Your task to perform on an android device: Search for the best rated mechanical keyboard on Amazon. Image 0: 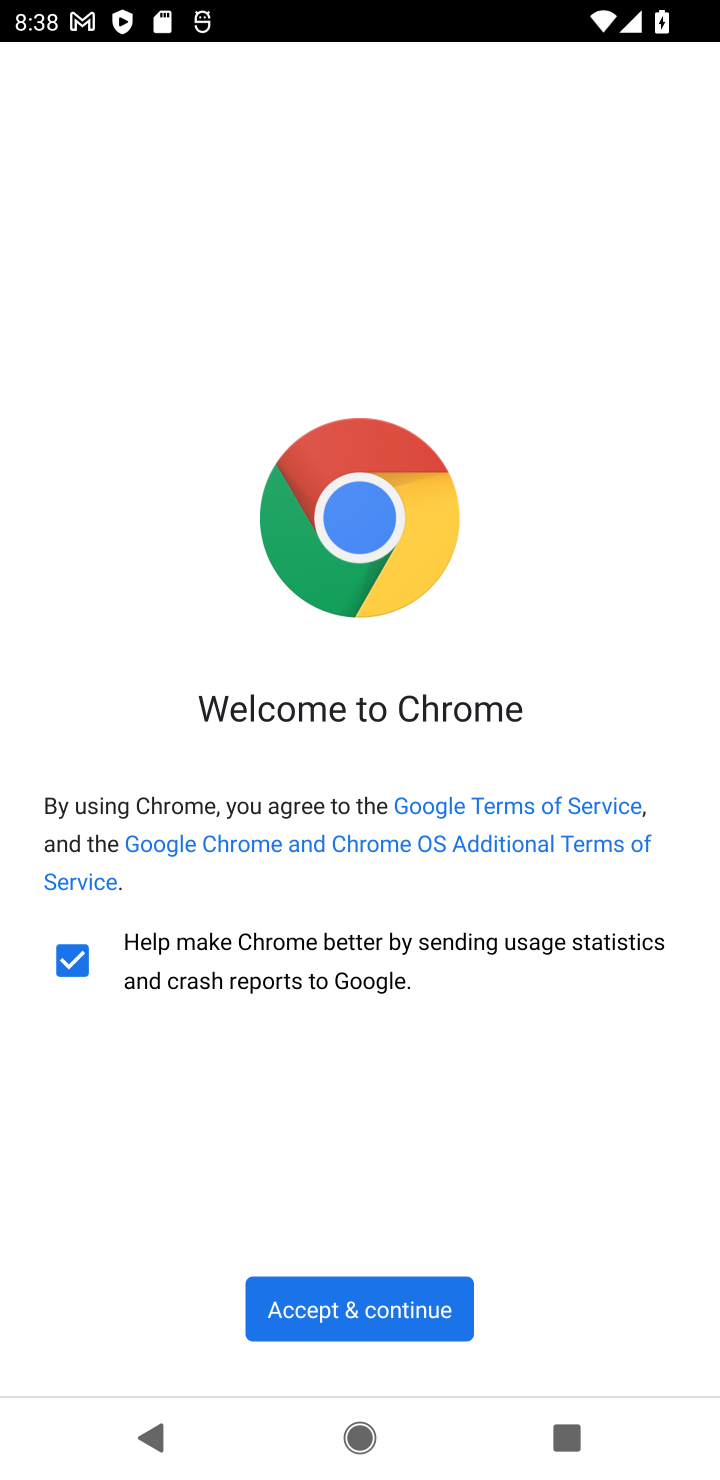
Step 0: press home button
Your task to perform on an android device: Search for the best rated mechanical keyboard on Amazon. Image 1: 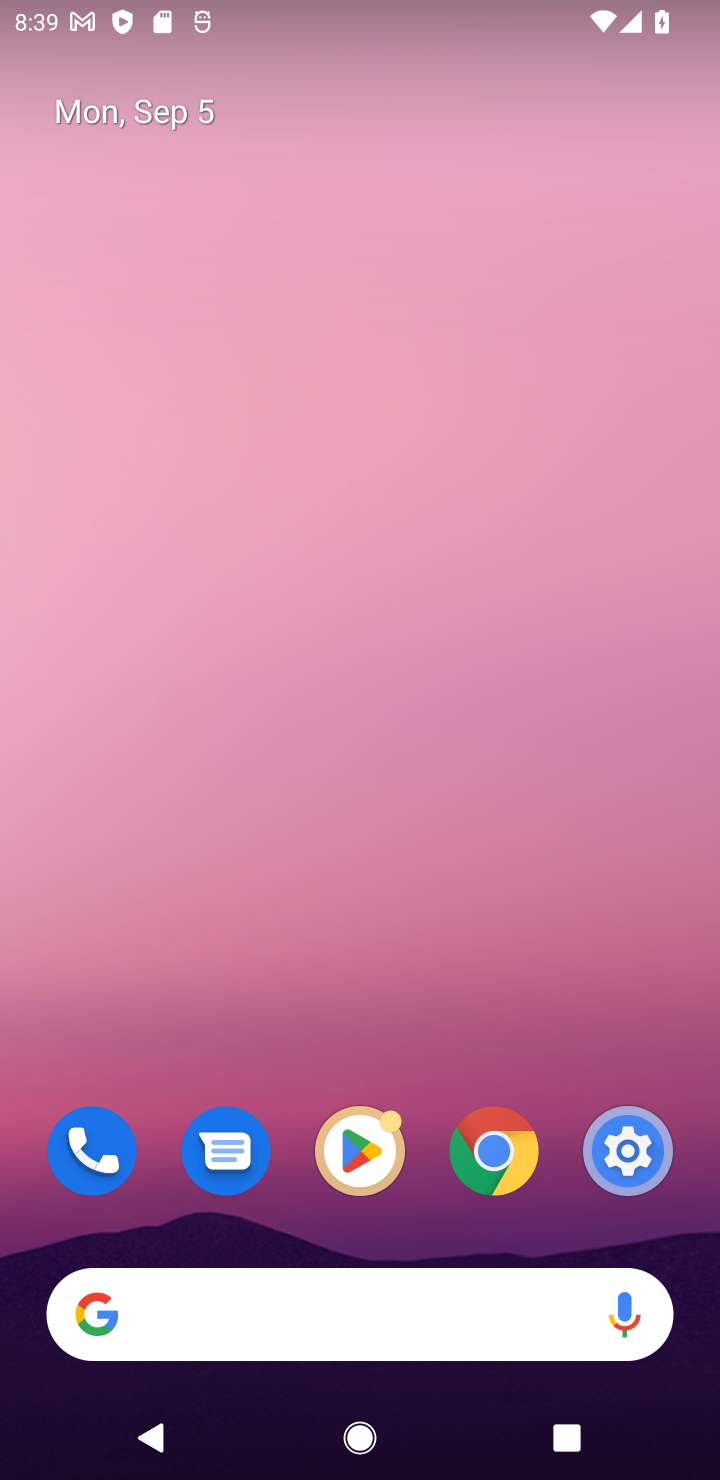
Step 1: drag from (473, 818) to (516, 0)
Your task to perform on an android device: Search for the best rated mechanical keyboard on Amazon. Image 2: 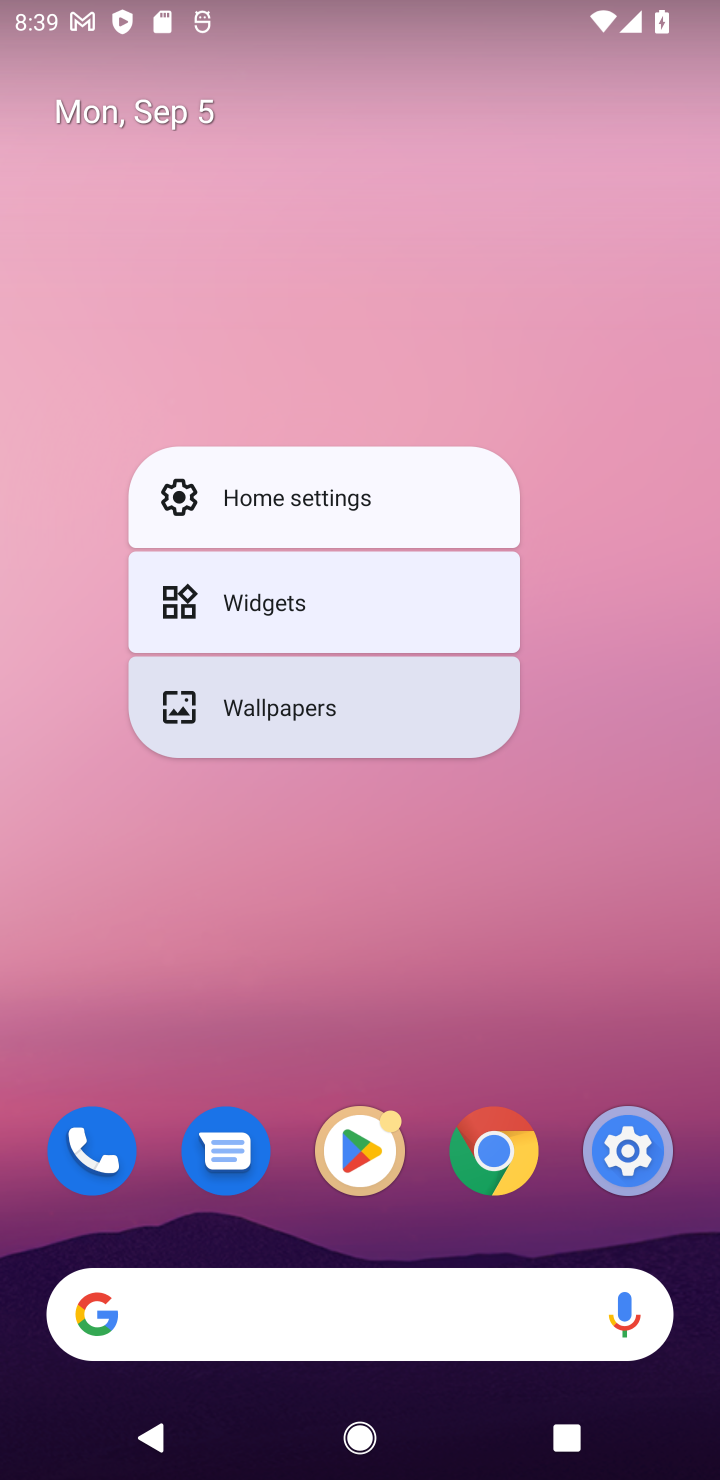
Step 2: click (704, 851)
Your task to perform on an android device: Search for the best rated mechanical keyboard on Amazon. Image 3: 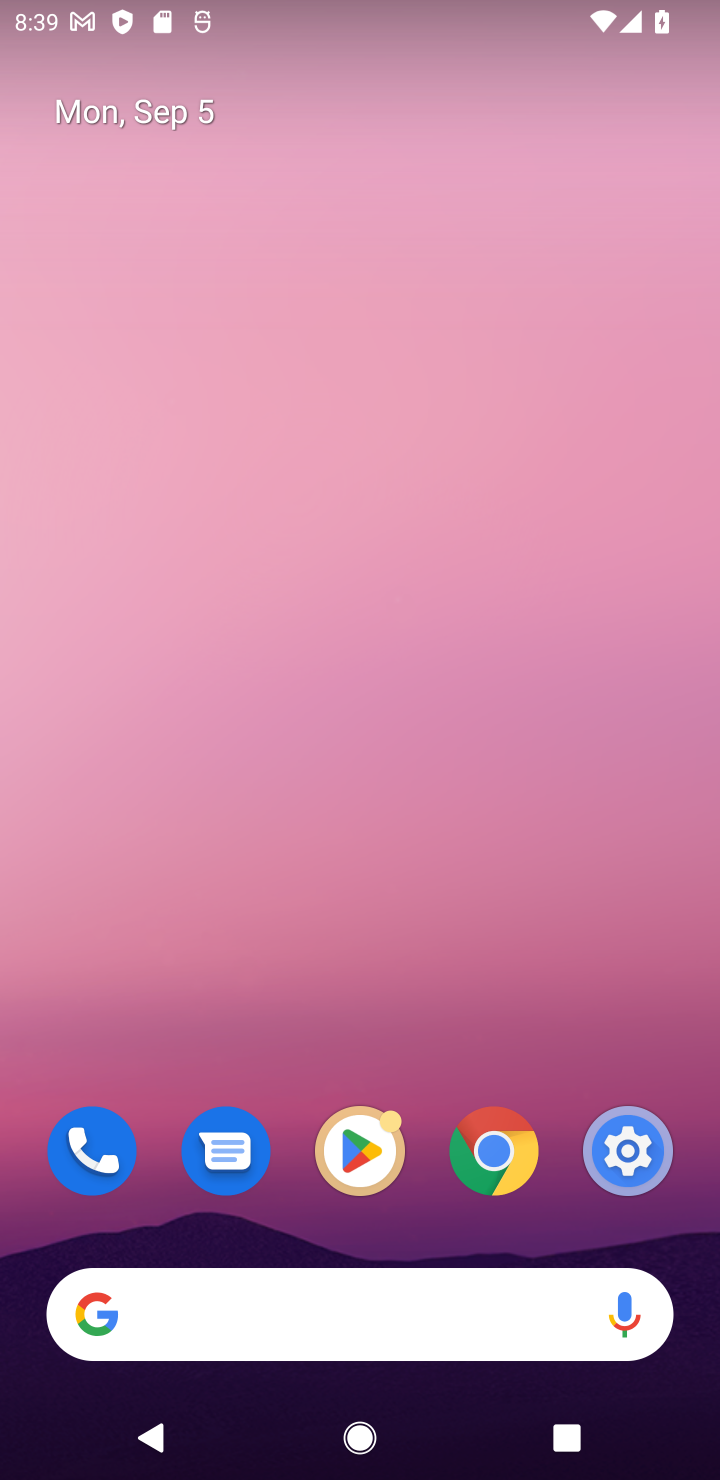
Step 3: drag from (316, 1079) to (439, 597)
Your task to perform on an android device: Search for the best rated mechanical keyboard on Amazon. Image 4: 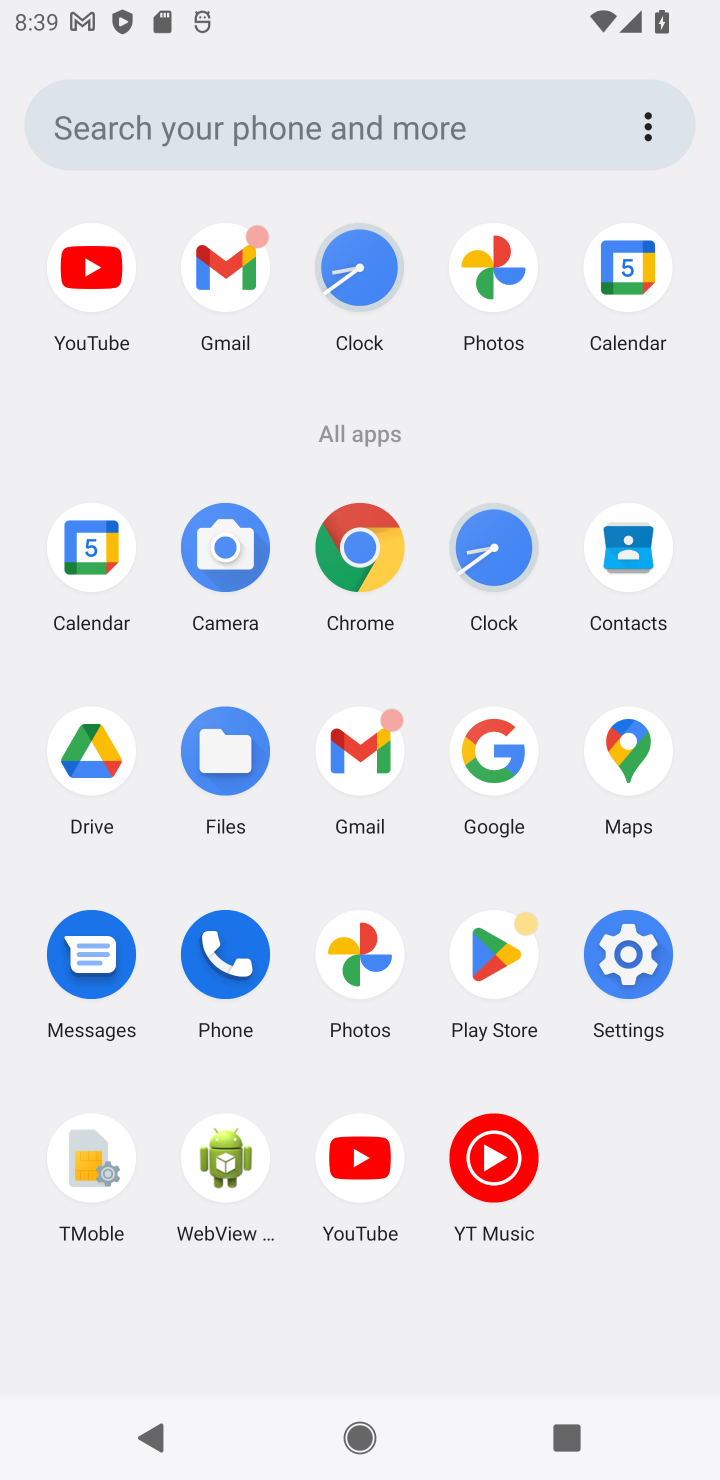
Step 4: click (385, 581)
Your task to perform on an android device: Search for the best rated mechanical keyboard on Amazon. Image 5: 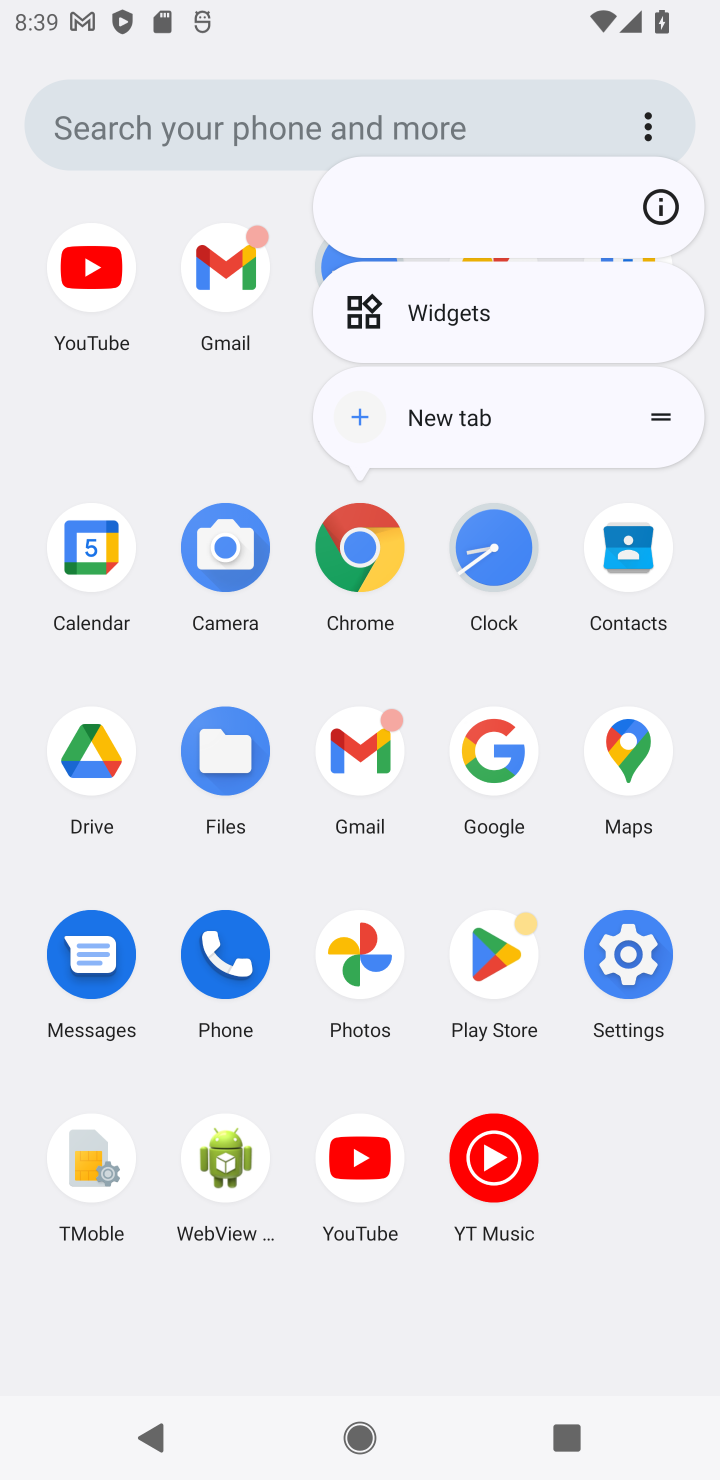
Step 5: click (378, 552)
Your task to perform on an android device: Search for the best rated mechanical keyboard on Amazon. Image 6: 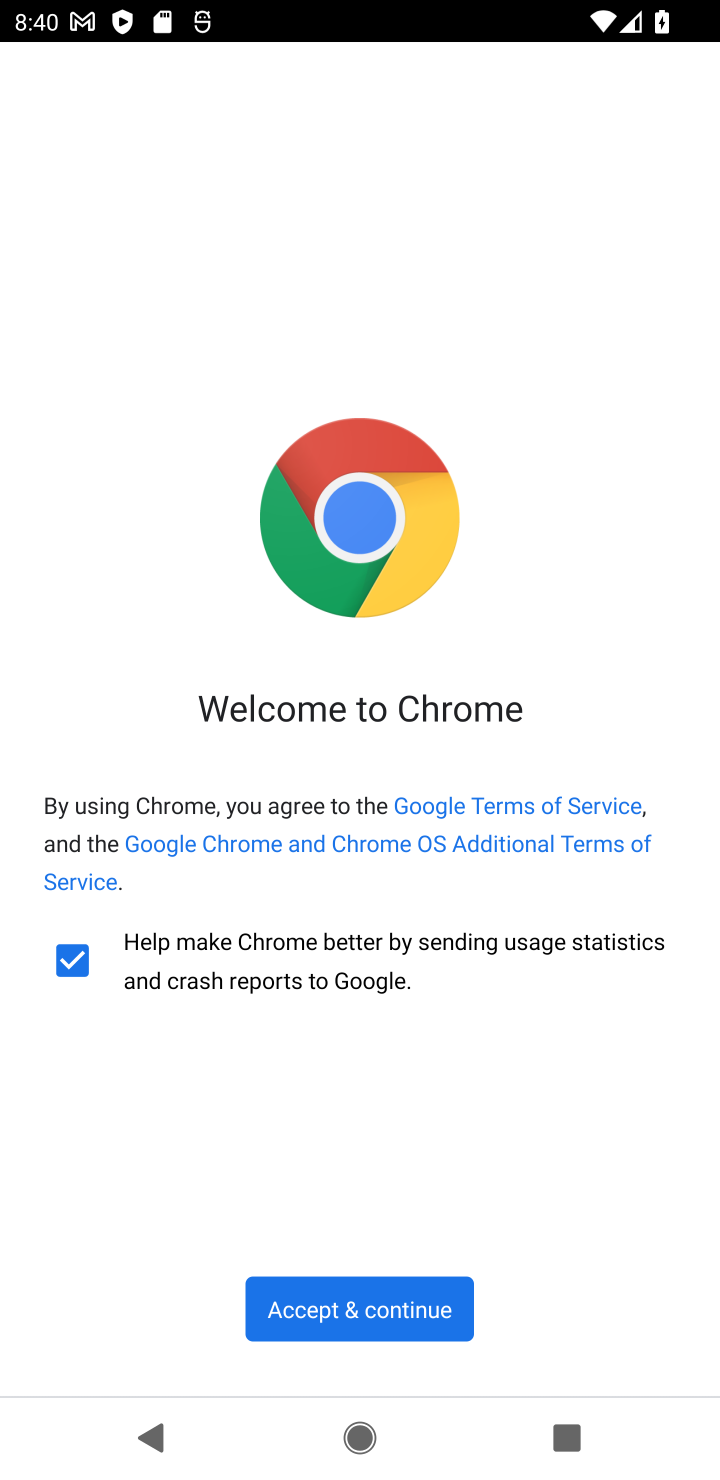
Step 6: click (343, 1303)
Your task to perform on an android device: Search for the best rated mechanical keyboard on Amazon. Image 7: 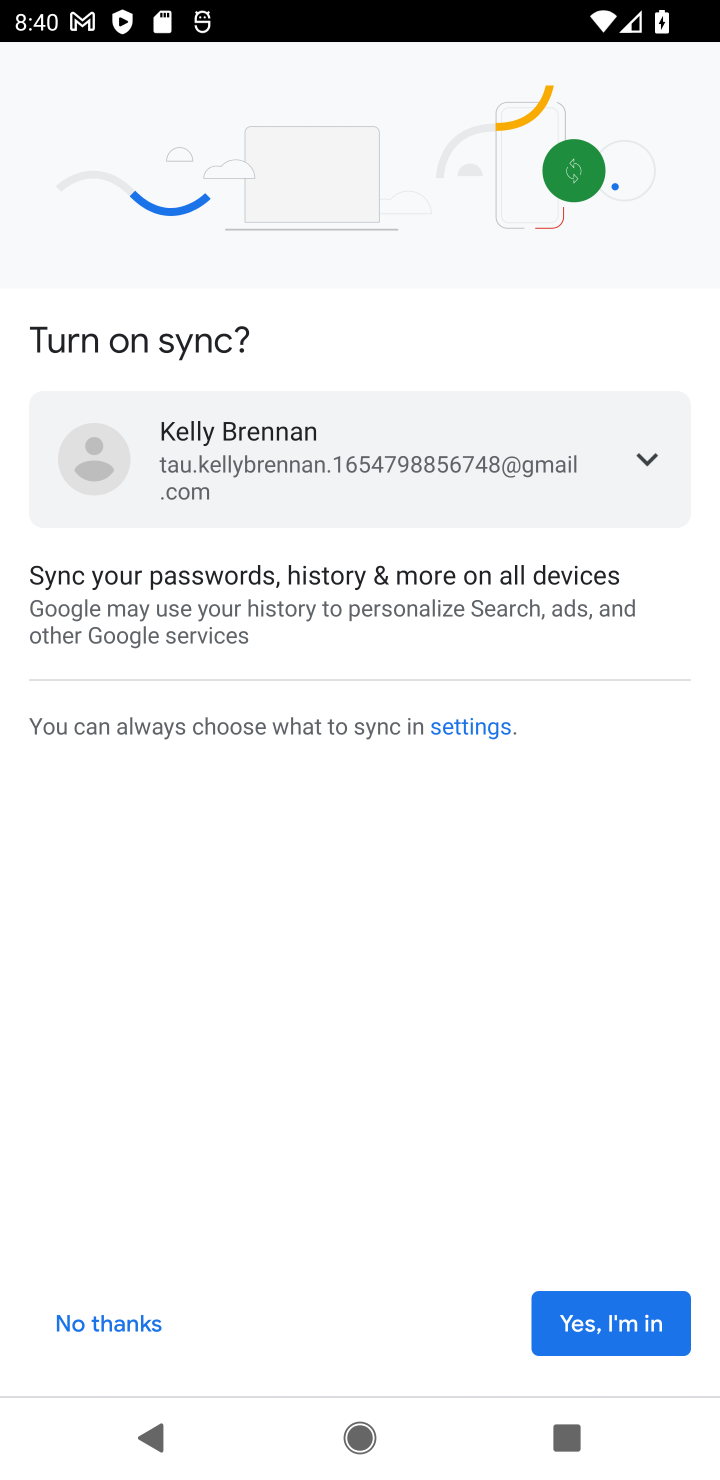
Step 7: click (590, 1314)
Your task to perform on an android device: Search for the best rated mechanical keyboard on Amazon. Image 8: 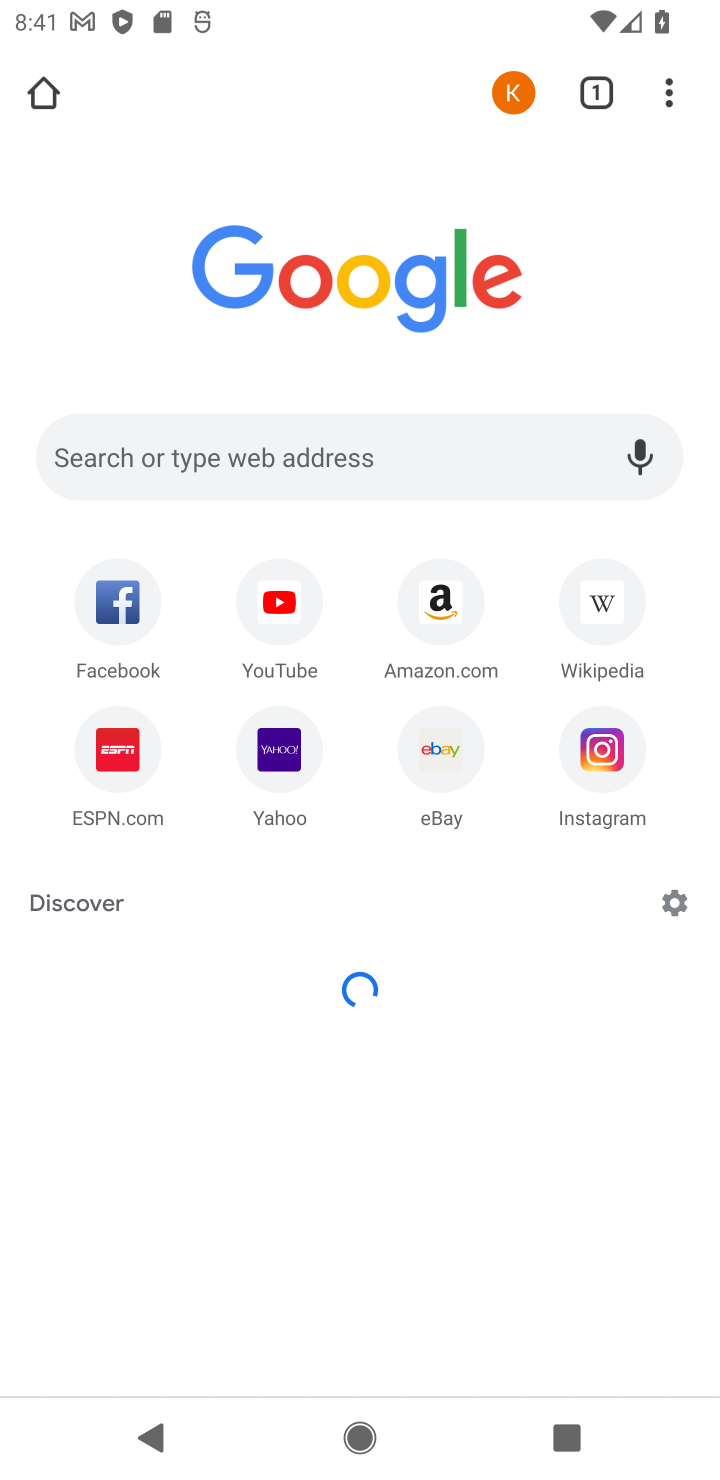
Step 8: click (408, 613)
Your task to perform on an android device: Search for the best rated mechanical keyboard on Amazon. Image 9: 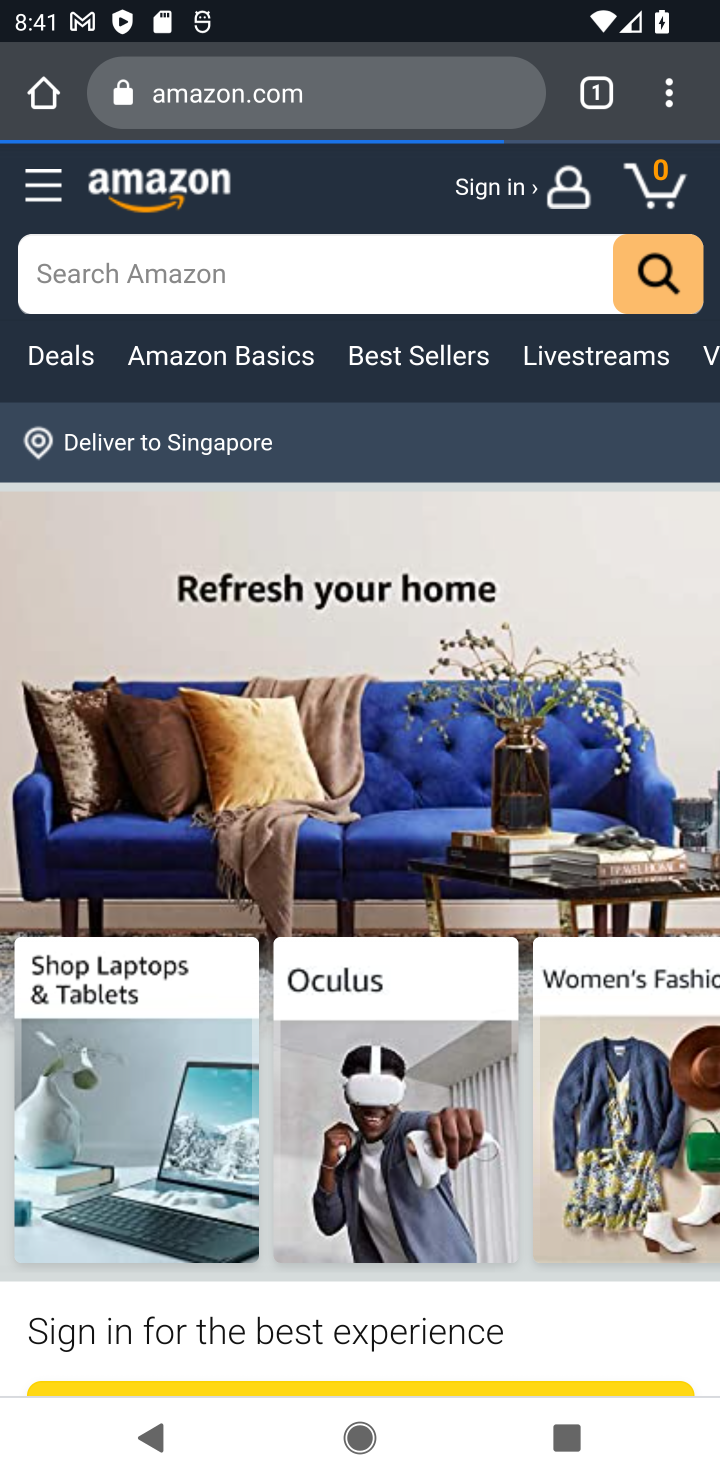
Step 9: click (334, 254)
Your task to perform on an android device: Search for the best rated mechanical keyboard on Amazon. Image 10: 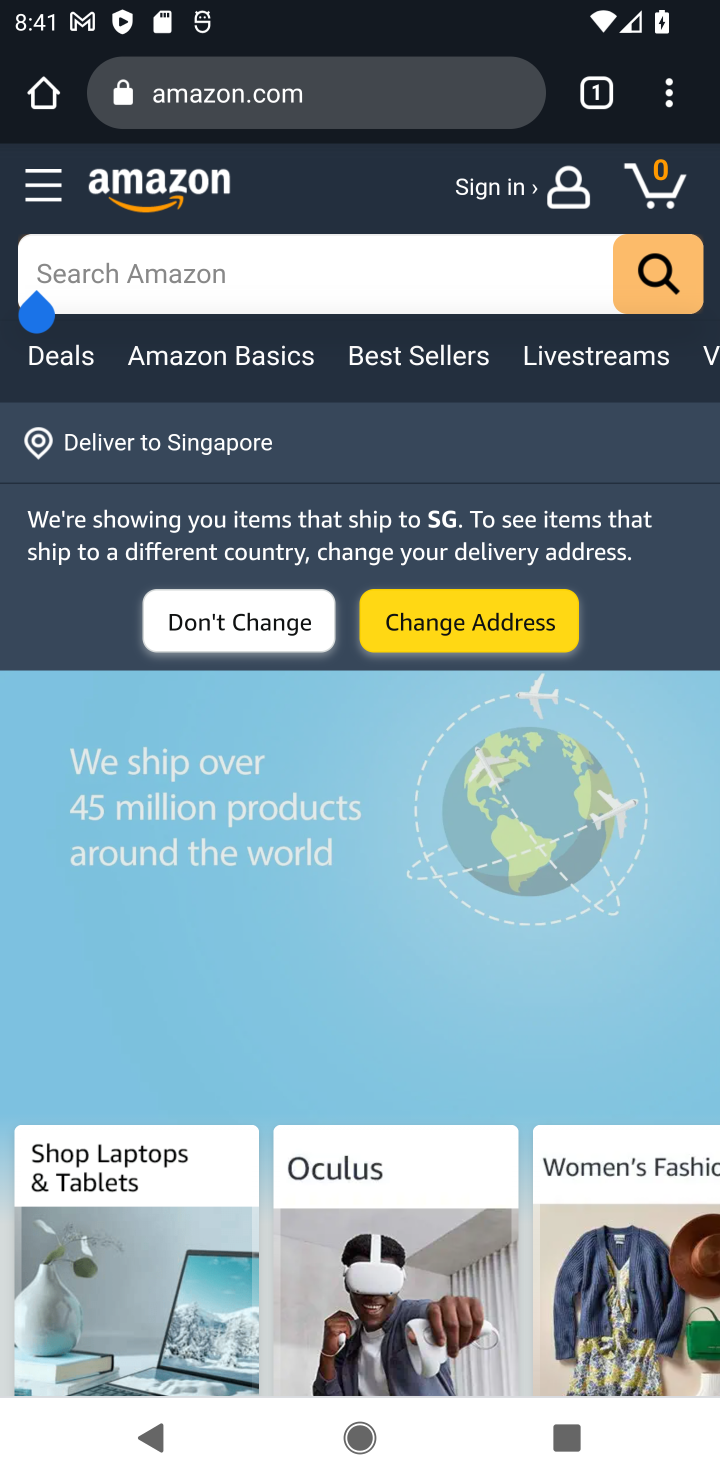
Step 10: type "best rated mechanical keyboard"
Your task to perform on an android device: Search for the best rated mechanical keyboard on Amazon. Image 11: 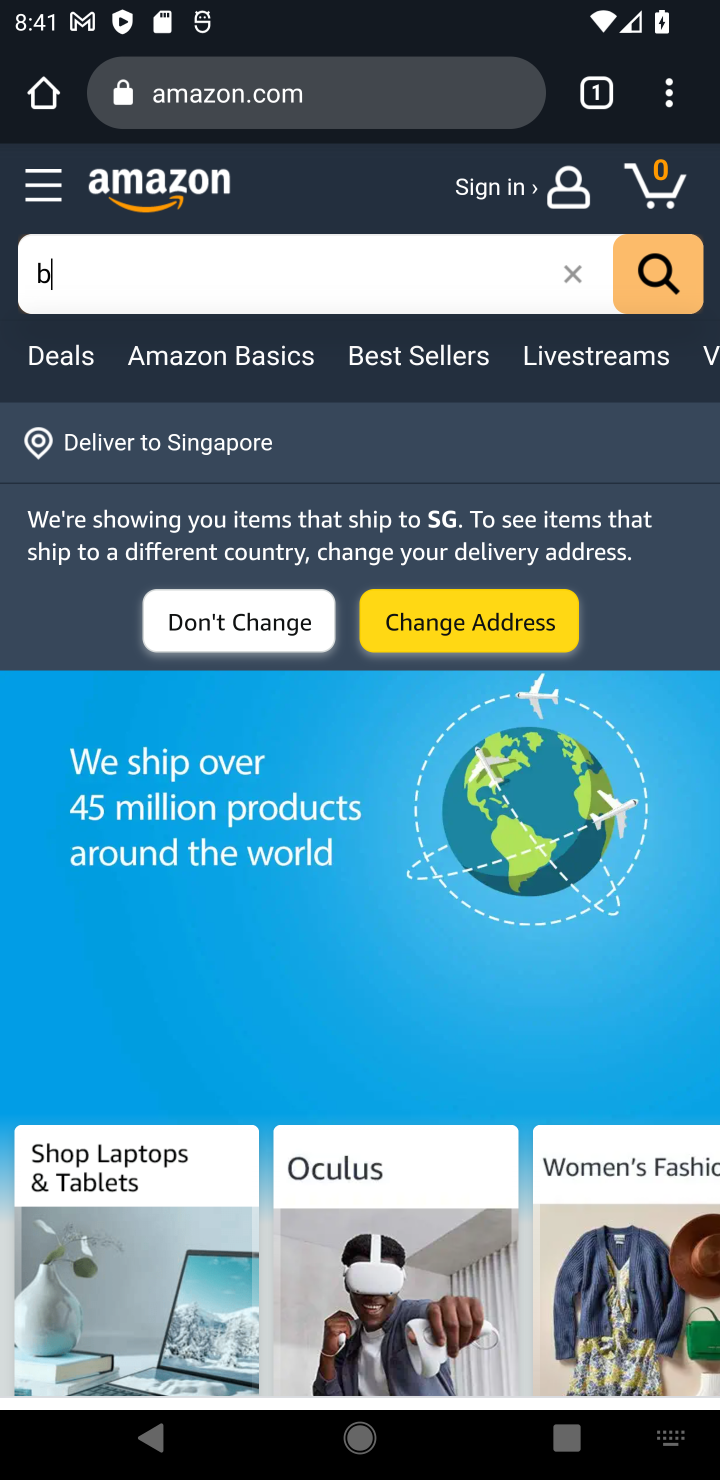
Step 11: press enter
Your task to perform on an android device: Search for the best rated mechanical keyboard on Amazon. Image 12: 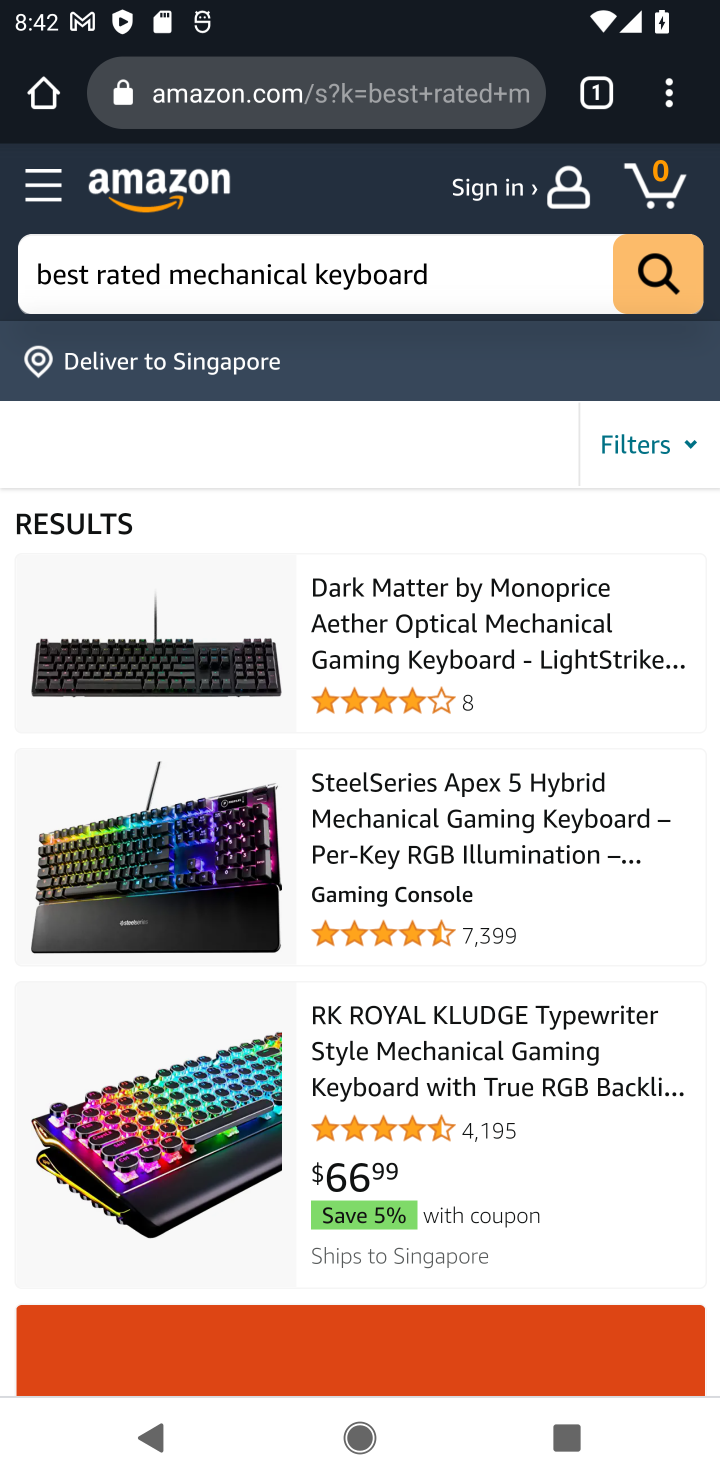
Step 12: task complete